Your task to perform on an android device: check battery use Image 0: 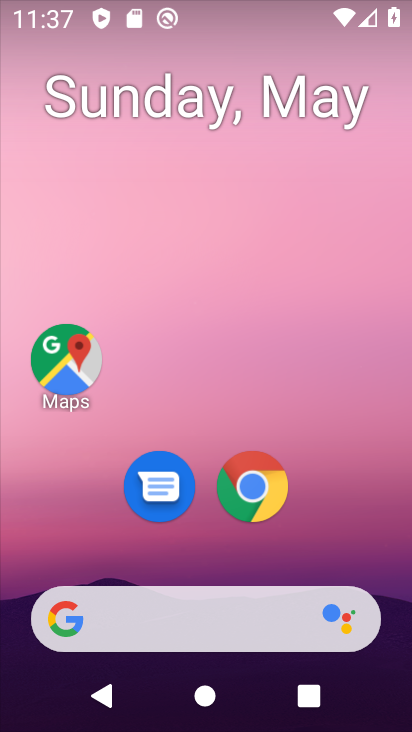
Step 0: drag from (342, 522) to (224, 105)
Your task to perform on an android device: check battery use Image 1: 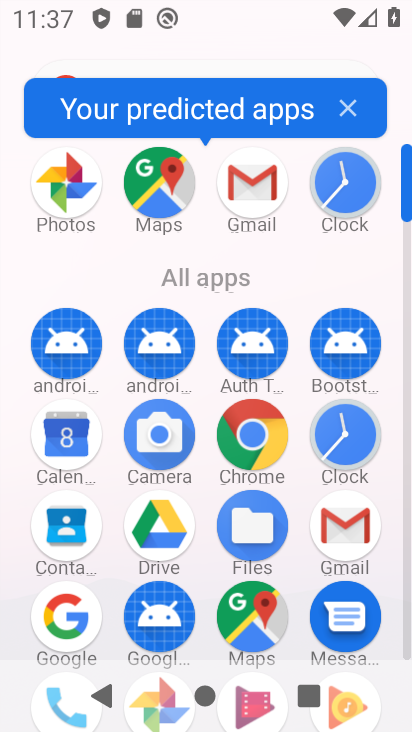
Step 1: click (406, 642)
Your task to perform on an android device: check battery use Image 2: 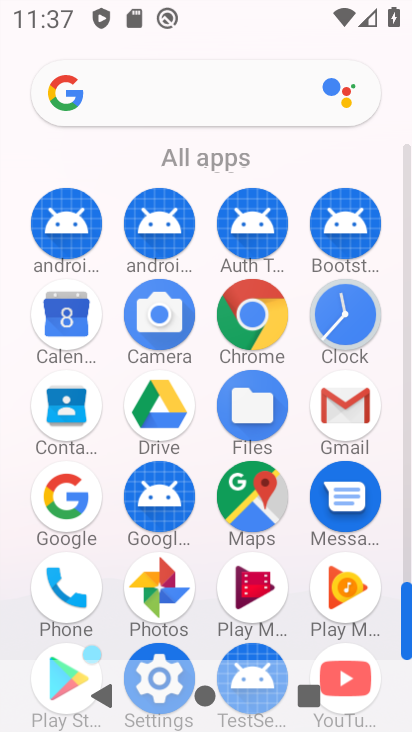
Step 2: click (161, 653)
Your task to perform on an android device: check battery use Image 3: 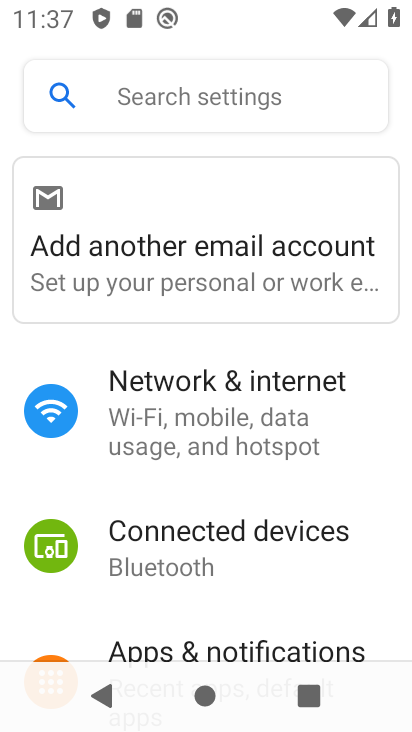
Step 3: click (246, 608)
Your task to perform on an android device: check battery use Image 4: 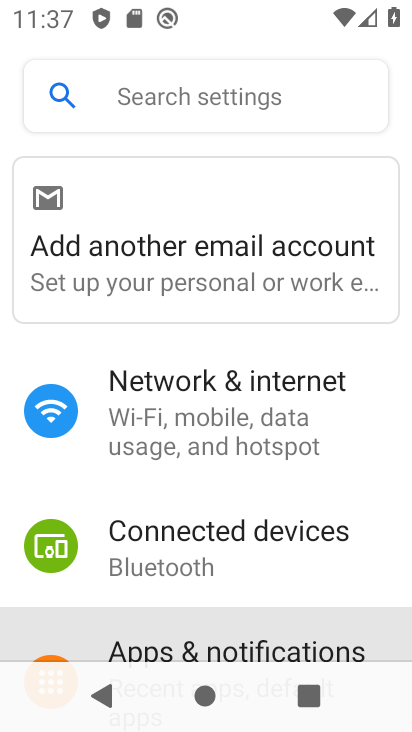
Step 4: drag from (246, 608) to (194, 93)
Your task to perform on an android device: check battery use Image 5: 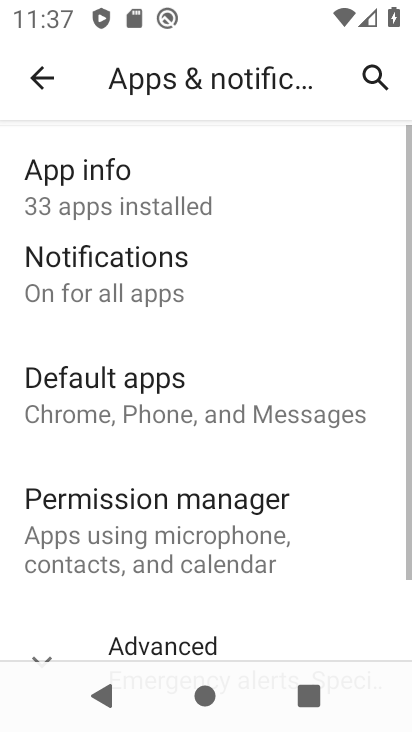
Step 5: click (60, 90)
Your task to perform on an android device: check battery use Image 6: 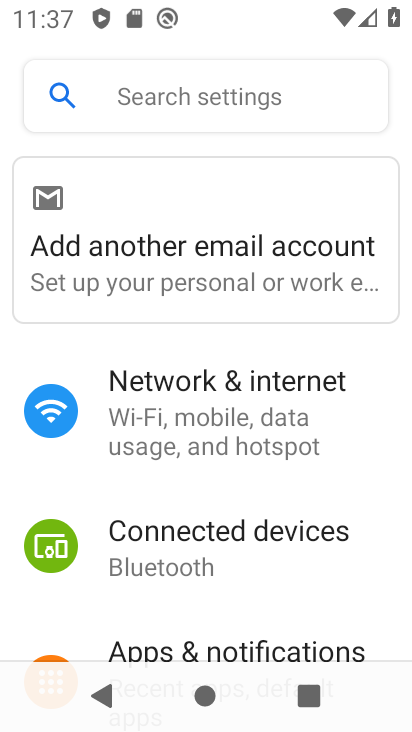
Step 6: drag from (247, 598) to (208, 114)
Your task to perform on an android device: check battery use Image 7: 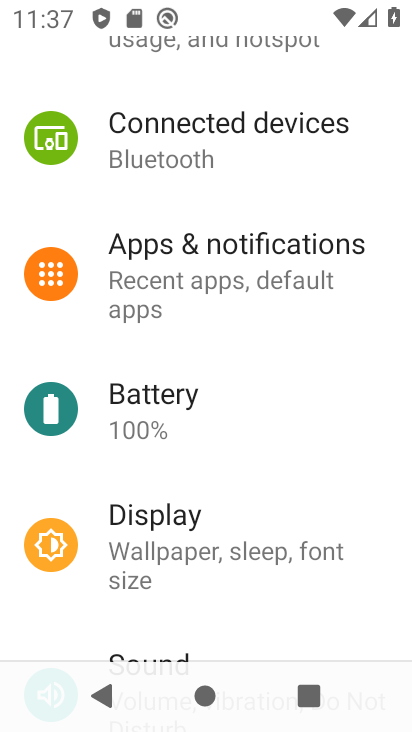
Step 7: click (256, 401)
Your task to perform on an android device: check battery use Image 8: 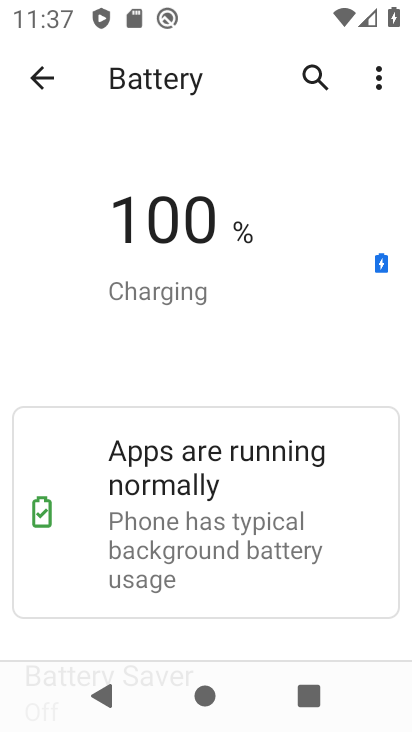
Step 8: task complete